Your task to perform on an android device: Is it going to rain today? Image 0: 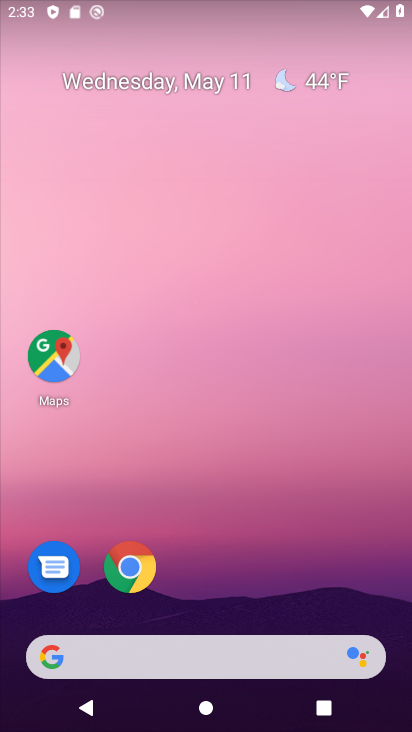
Step 0: press back button
Your task to perform on an android device: Is it going to rain today? Image 1: 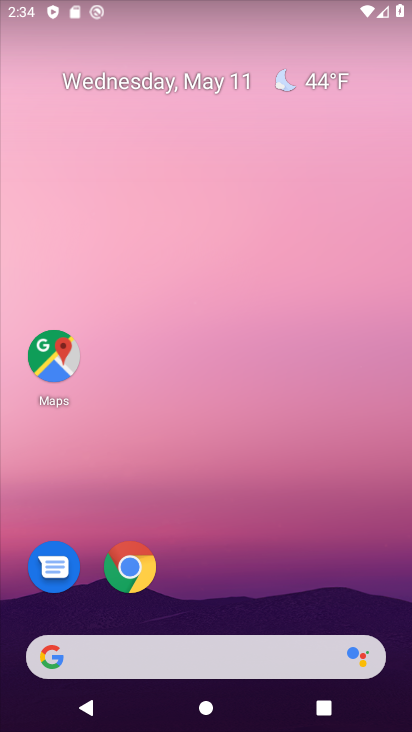
Step 1: drag from (211, 529) to (227, 0)
Your task to perform on an android device: Is it going to rain today? Image 2: 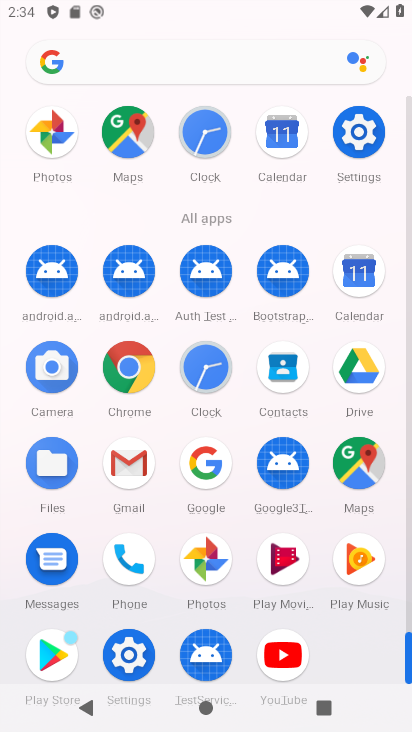
Step 2: drag from (18, 591) to (0, 206)
Your task to perform on an android device: Is it going to rain today? Image 3: 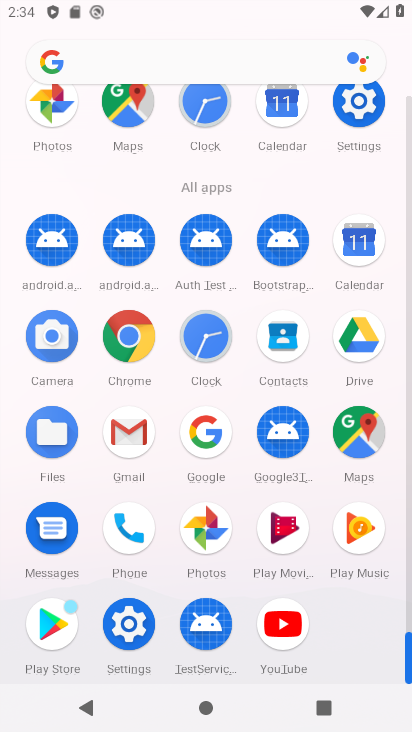
Step 3: click (121, 326)
Your task to perform on an android device: Is it going to rain today? Image 4: 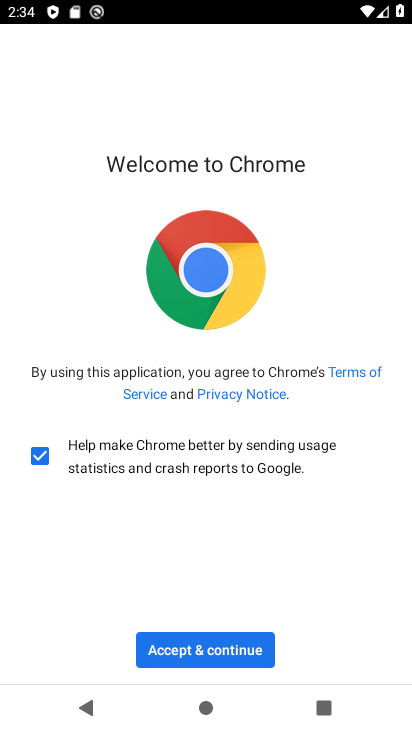
Step 4: click (203, 642)
Your task to perform on an android device: Is it going to rain today? Image 5: 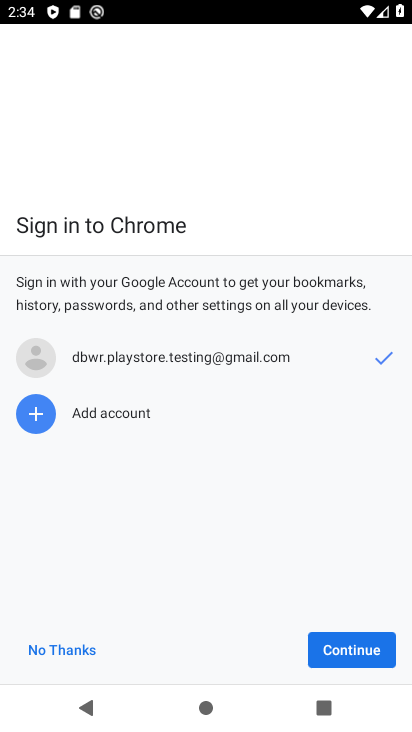
Step 5: click (341, 643)
Your task to perform on an android device: Is it going to rain today? Image 6: 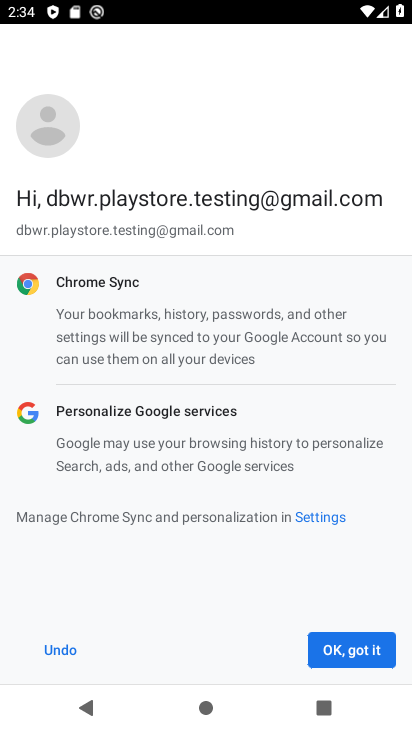
Step 6: click (343, 655)
Your task to perform on an android device: Is it going to rain today? Image 7: 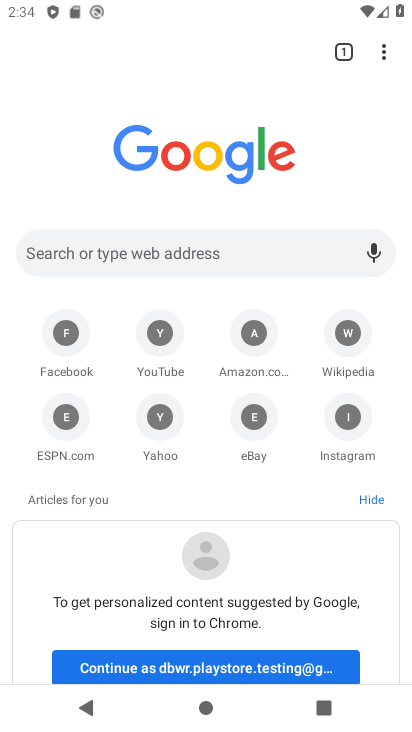
Step 7: click (168, 48)
Your task to perform on an android device: Is it going to rain today? Image 8: 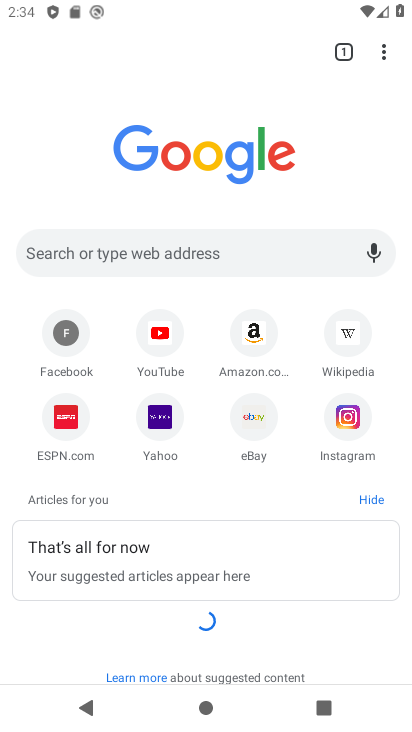
Step 8: click (184, 256)
Your task to perform on an android device: Is it going to rain today? Image 9: 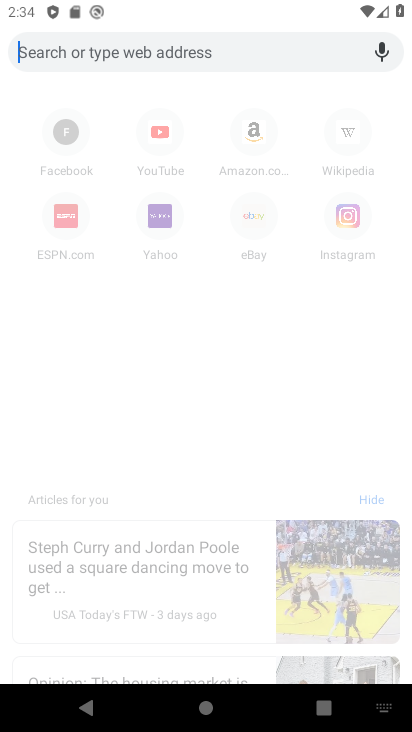
Step 9: type "Is it going to rain today?"
Your task to perform on an android device: Is it going to rain today? Image 10: 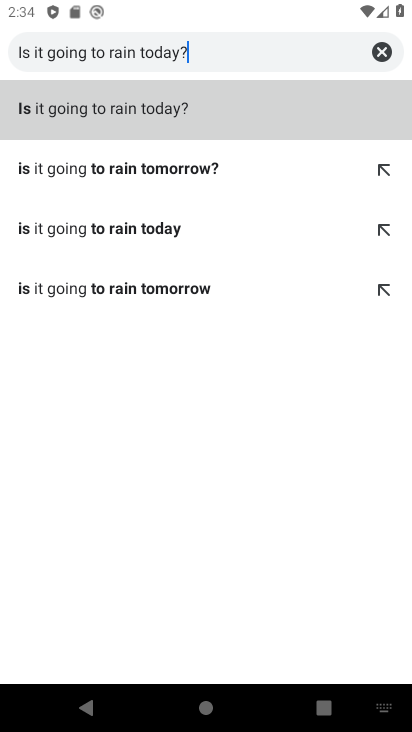
Step 10: type ""
Your task to perform on an android device: Is it going to rain today? Image 11: 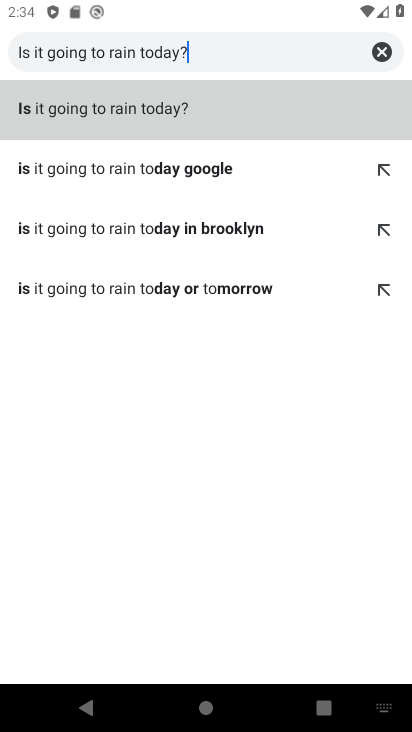
Step 11: click (150, 101)
Your task to perform on an android device: Is it going to rain today? Image 12: 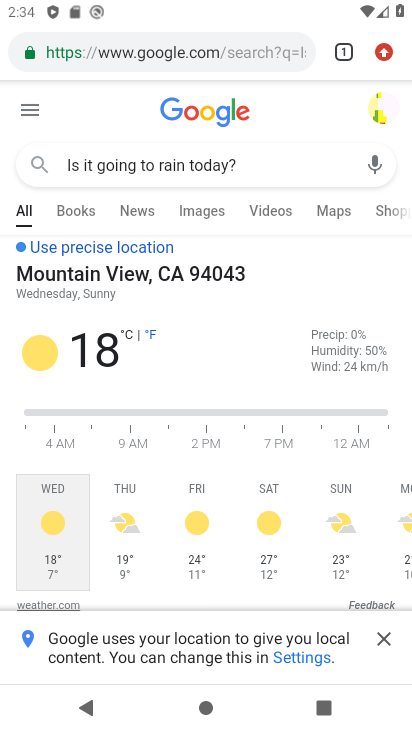
Step 12: task complete